Your task to perform on an android device: check the backup settings in the google photos Image 0: 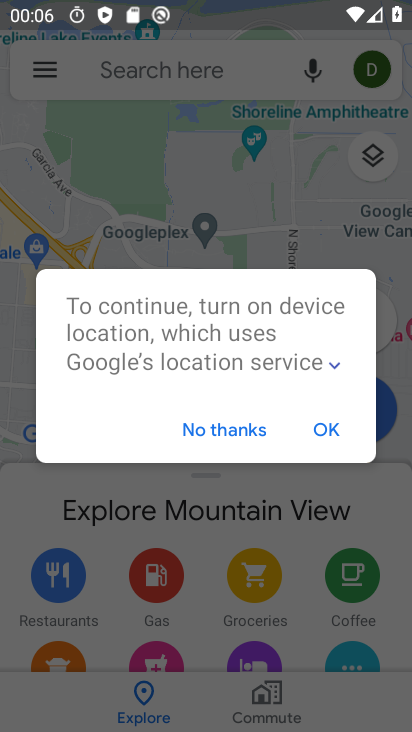
Step 0: press home button
Your task to perform on an android device: check the backup settings in the google photos Image 1: 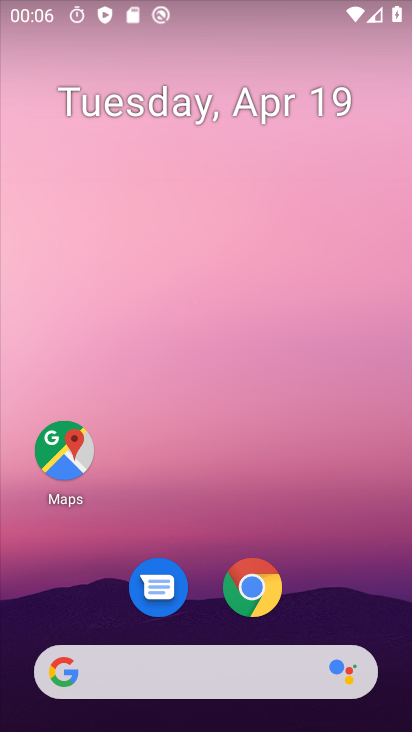
Step 1: drag from (373, 602) to (336, 134)
Your task to perform on an android device: check the backup settings in the google photos Image 2: 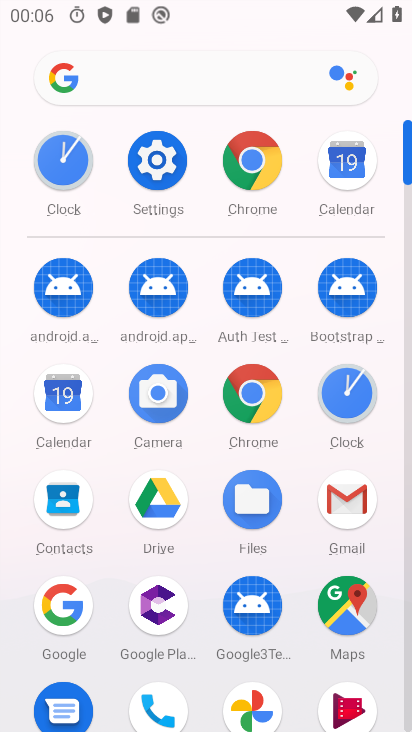
Step 2: click (252, 695)
Your task to perform on an android device: check the backup settings in the google photos Image 3: 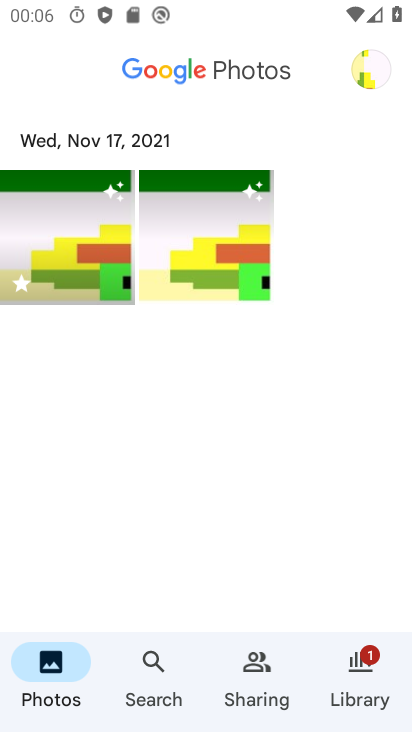
Step 3: click (373, 63)
Your task to perform on an android device: check the backup settings in the google photos Image 4: 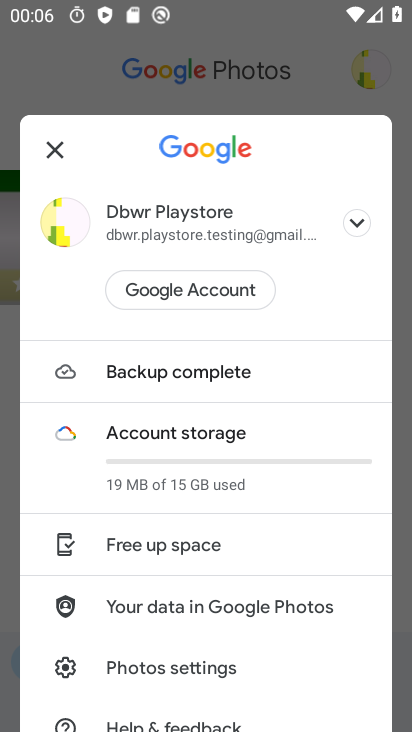
Step 4: drag from (326, 662) to (310, 400)
Your task to perform on an android device: check the backup settings in the google photos Image 5: 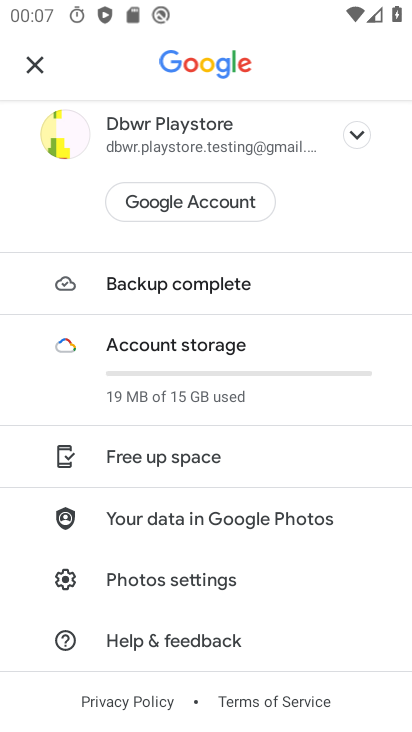
Step 5: click (155, 576)
Your task to perform on an android device: check the backup settings in the google photos Image 6: 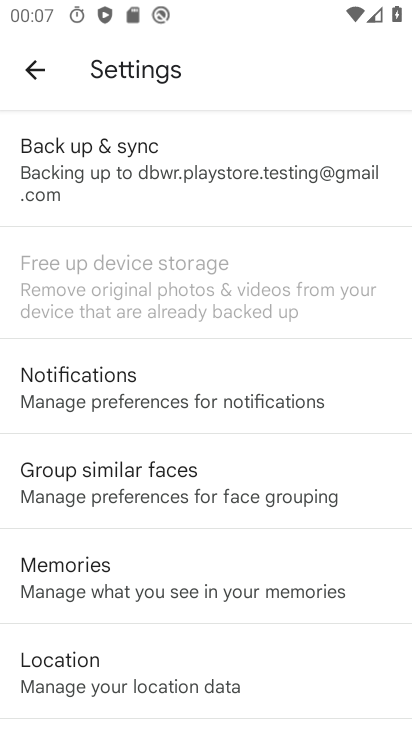
Step 6: click (99, 160)
Your task to perform on an android device: check the backup settings in the google photos Image 7: 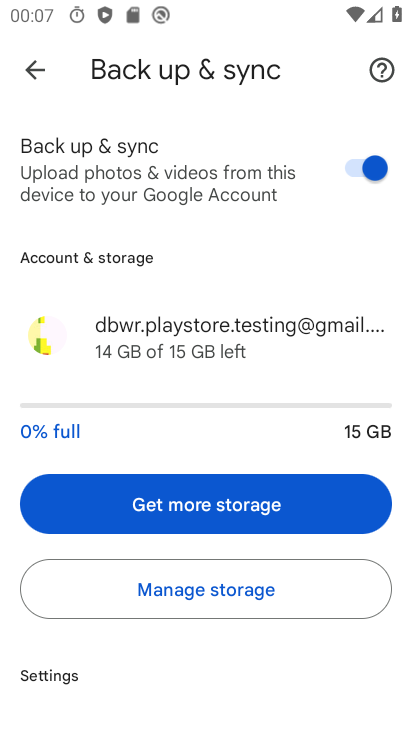
Step 7: task complete